Your task to perform on an android device: turn on improve location accuracy Image 0: 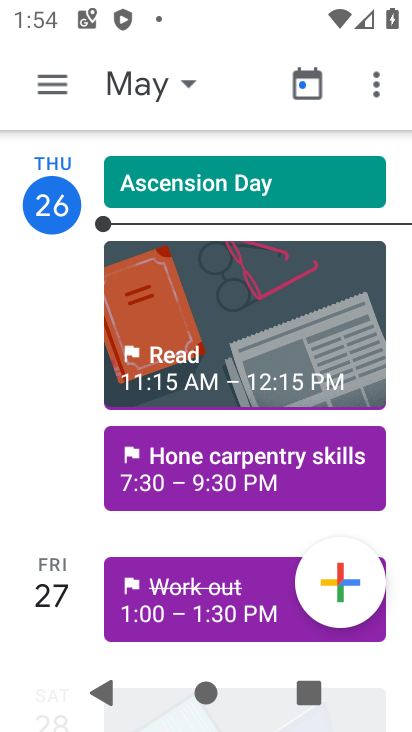
Step 0: press home button
Your task to perform on an android device: turn on improve location accuracy Image 1: 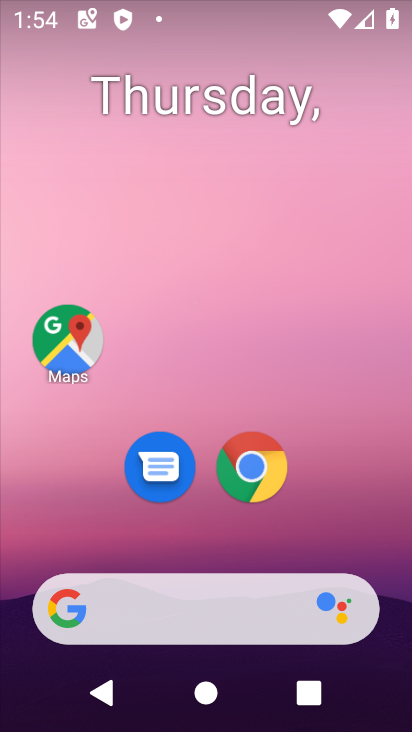
Step 1: drag from (325, 517) to (325, 139)
Your task to perform on an android device: turn on improve location accuracy Image 2: 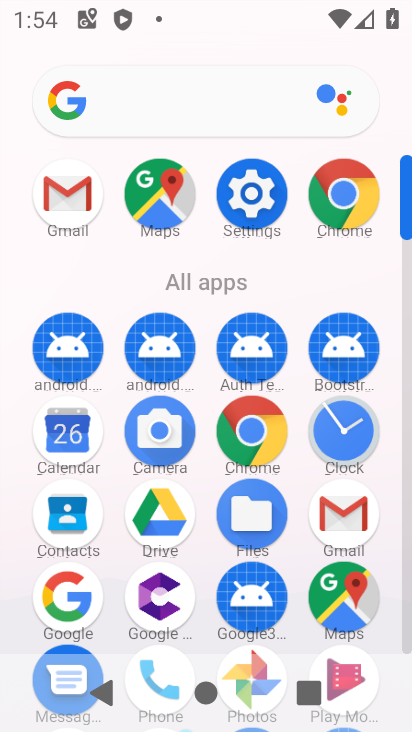
Step 2: click (210, 190)
Your task to perform on an android device: turn on improve location accuracy Image 3: 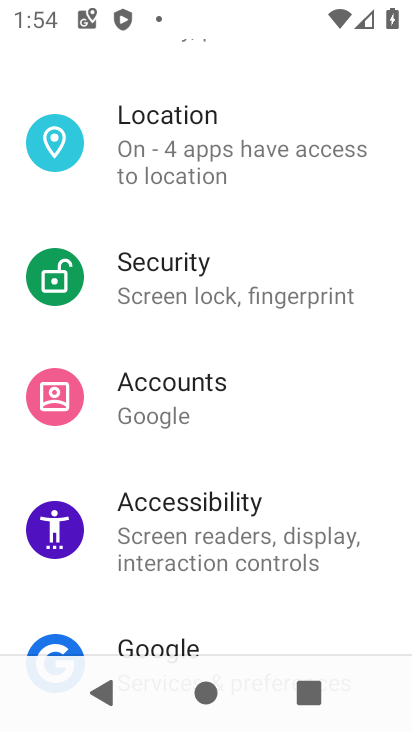
Step 3: drag from (289, 568) to (303, 223)
Your task to perform on an android device: turn on improve location accuracy Image 4: 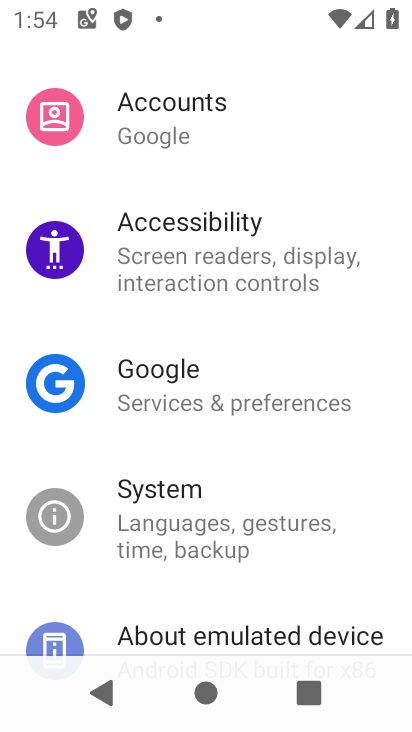
Step 4: drag from (281, 557) to (300, 238)
Your task to perform on an android device: turn on improve location accuracy Image 5: 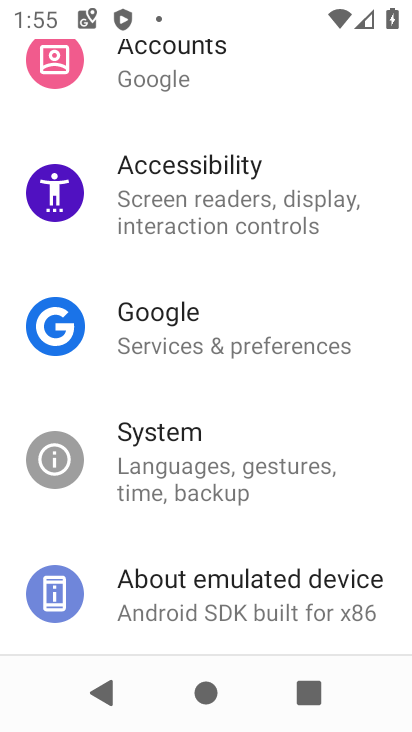
Step 5: drag from (277, 165) to (291, 477)
Your task to perform on an android device: turn on improve location accuracy Image 6: 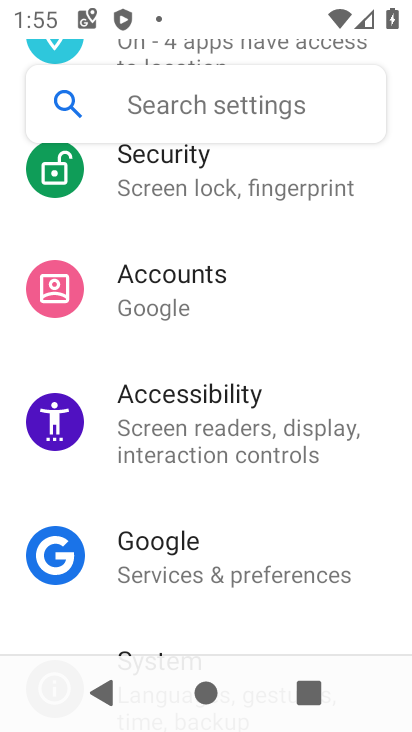
Step 6: drag from (266, 222) to (275, 502)
Your task to perform on an android device: turn on improve location accuracy Image 7: 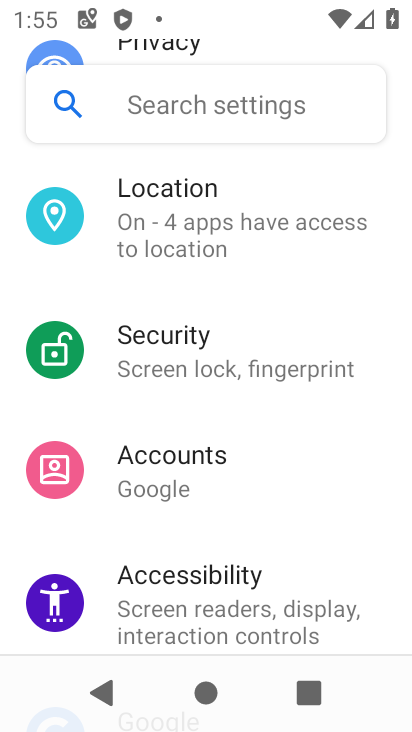
Step 7: click (256, 217)
Your task to perform on an android device: turn on improve location accuracy Image 8: 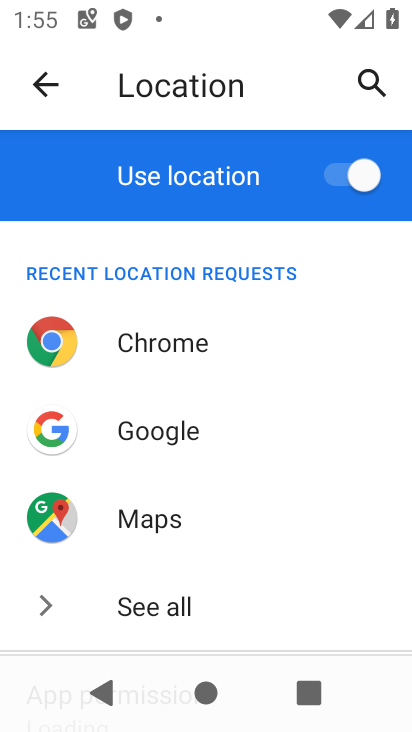
Step 8: drag from (267, 612) to (284, 348)
Your task to perform on an android device: turn on improve location accuracy Image 9: 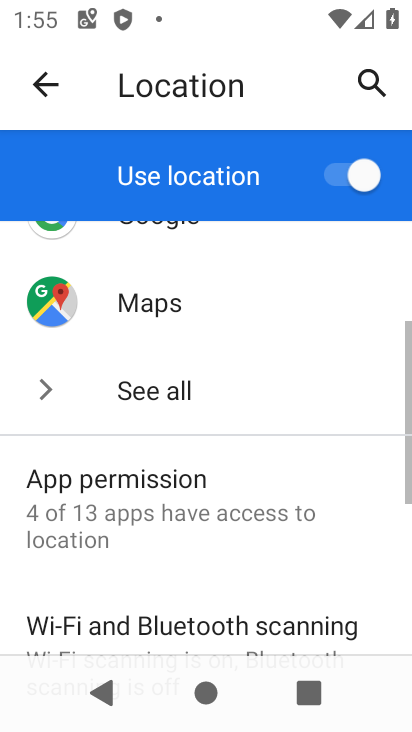
Step 9: drag from (269, 644) to (282, 314)
Your task to perform on an android device: turn on improve location accuracy Image 10: 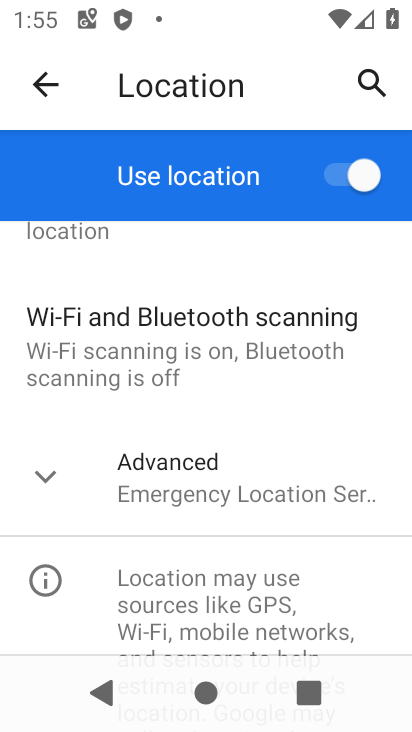
Step 10: drag from (317, 580) to (317, 315)
Your task to perform on an android device: turn on improve location accuracy Image 11: 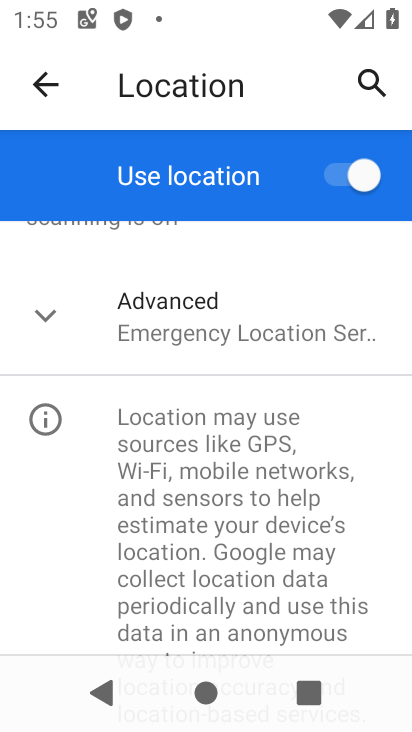
Step 11: click (296, 337)
Your task to perform on an android device: turn on improve location accuracy Image 12: 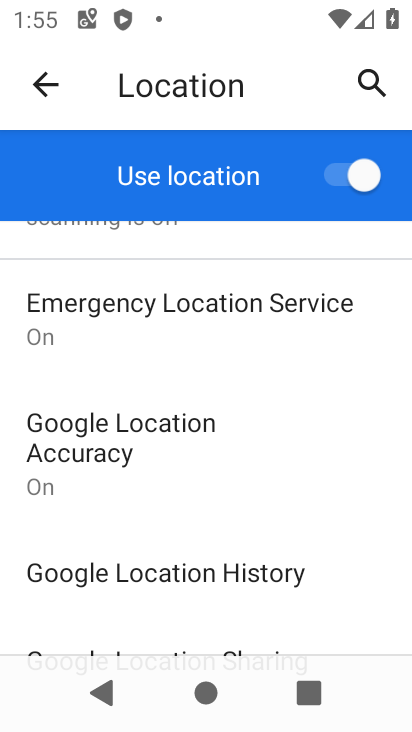
Step 12: drag from (267, 590) to (259, 394)
Your task to perform on an android device: turn on improve location accuracy Image 13: 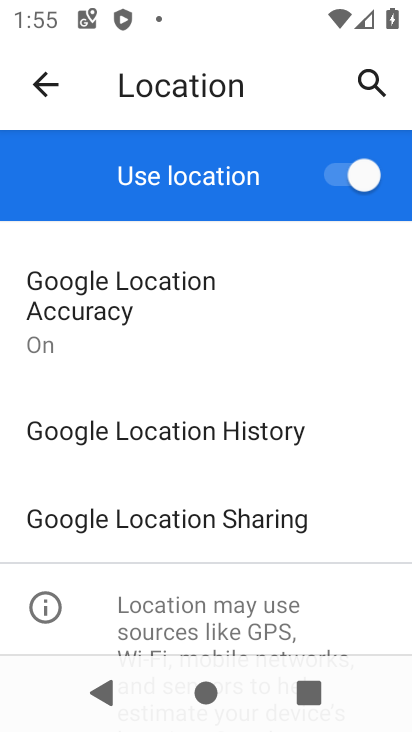
Step 13: click (132, 293)
Your task to perform on an android device: turn on improve location accuracy Image 14: 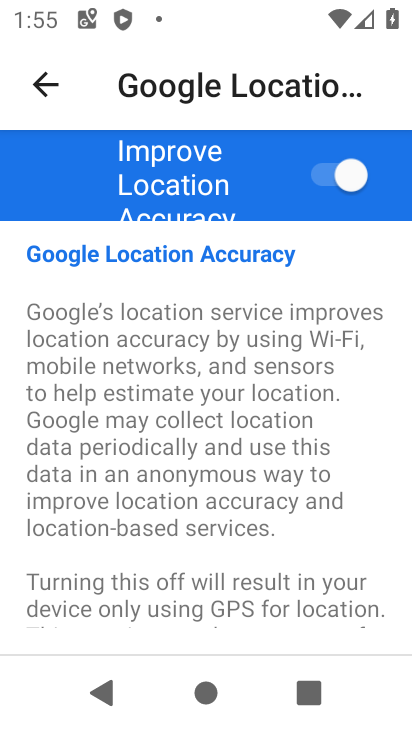
Step 14: task complete